Your task to perform on an android device: Show me productivity apps on the Play Store Image 0: 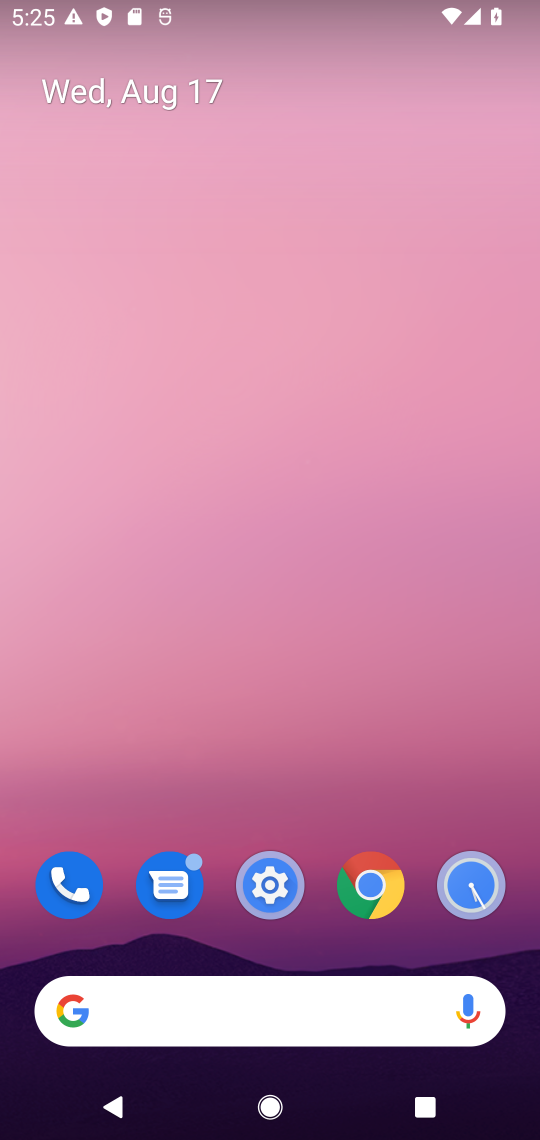
Step 0: drag from (334, 435) to (375, 255)
Your task to perform on an android device: Show me productivity apps on the Play Store Image 1: 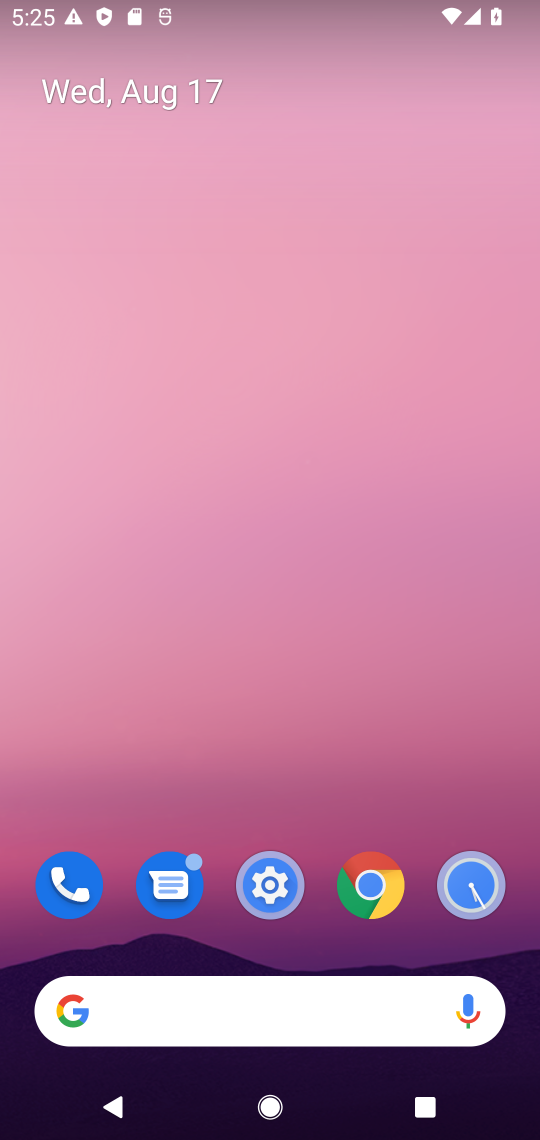
Step 1: drag from (196, 753) to (247, 326)
Your task to perform on an android device: Show me productivity apps on the Play Store Image 2: 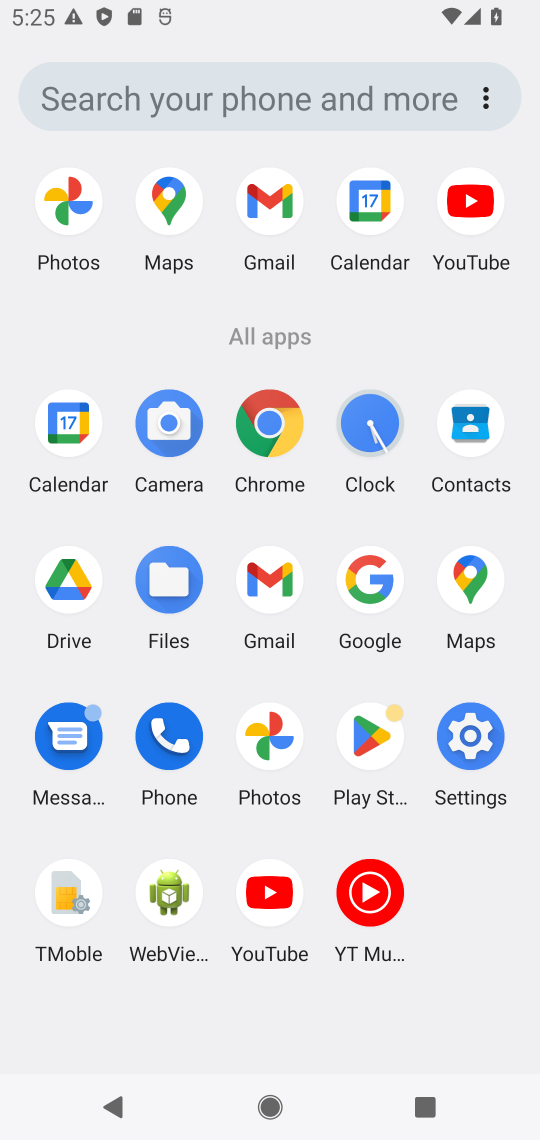
Step 2: click (380, 726)
Your task to perform on an android device: Show me productivity apps on the Play Store Image 3: 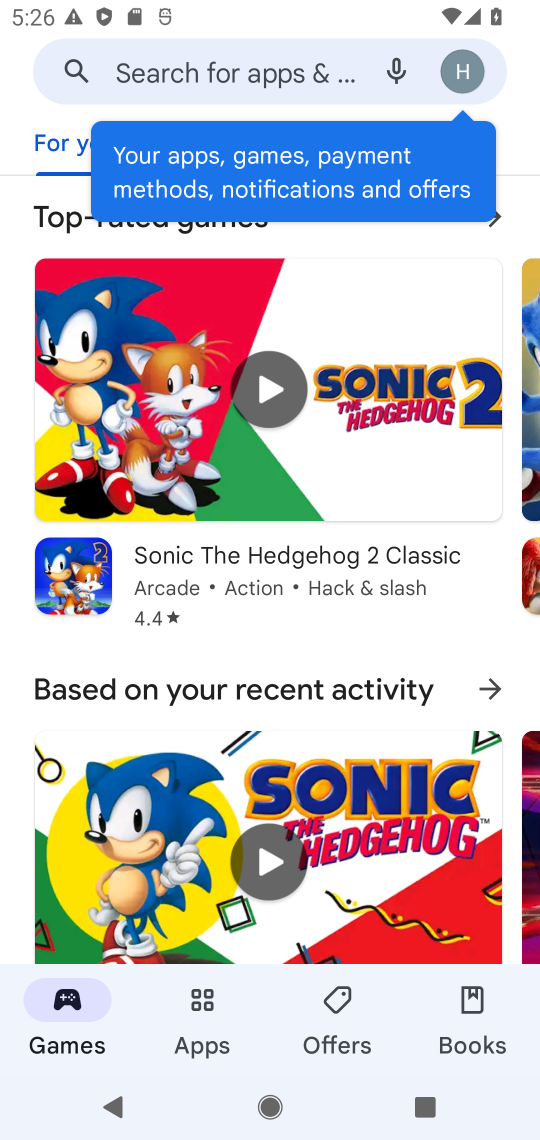
Step 3: click (202, 1020)
Your task to perform on an android device: Show me productivity apps on the Play Store Image 4: 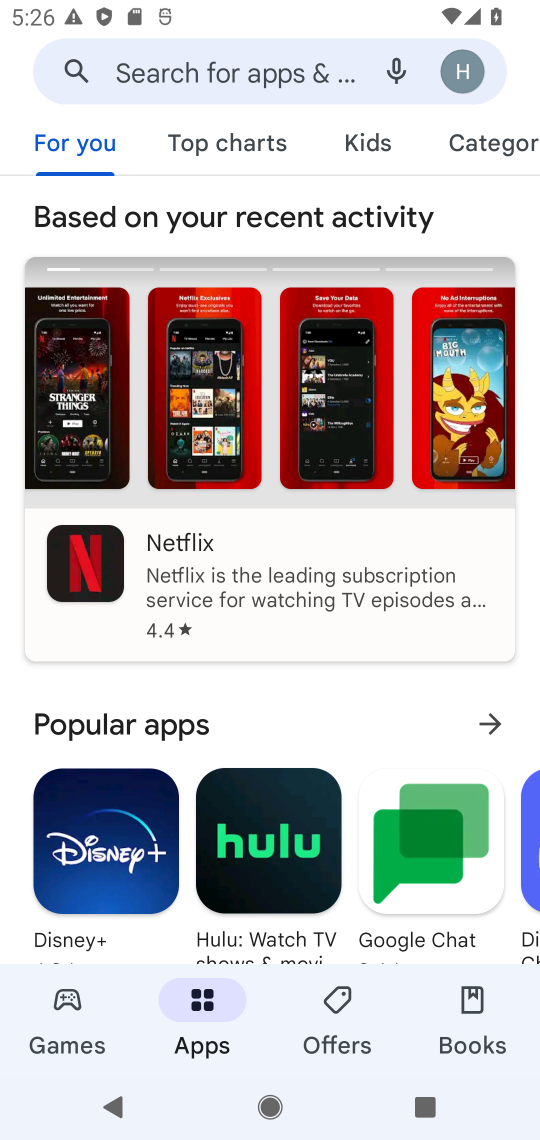
Step 4: drag from (316, 688) to (400, 147)
Your task to perform on an android device: Show me productivity apps on the Play Store Image 5: 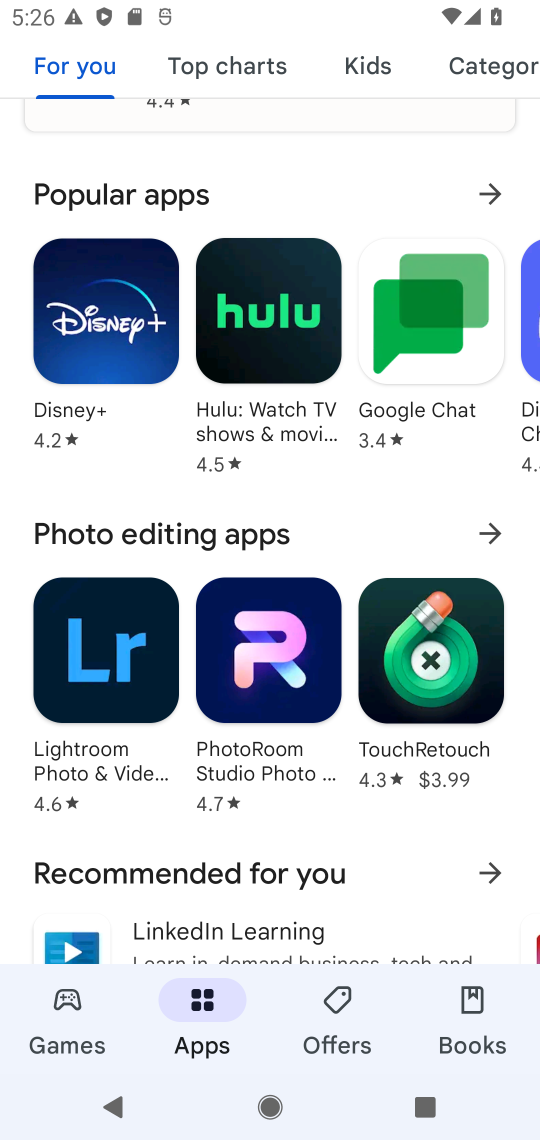
Step 5: drag from (291, 820) to (389, 222)
Your task to perform on an android device: Show me productivity apps on the Play Store Image 6: 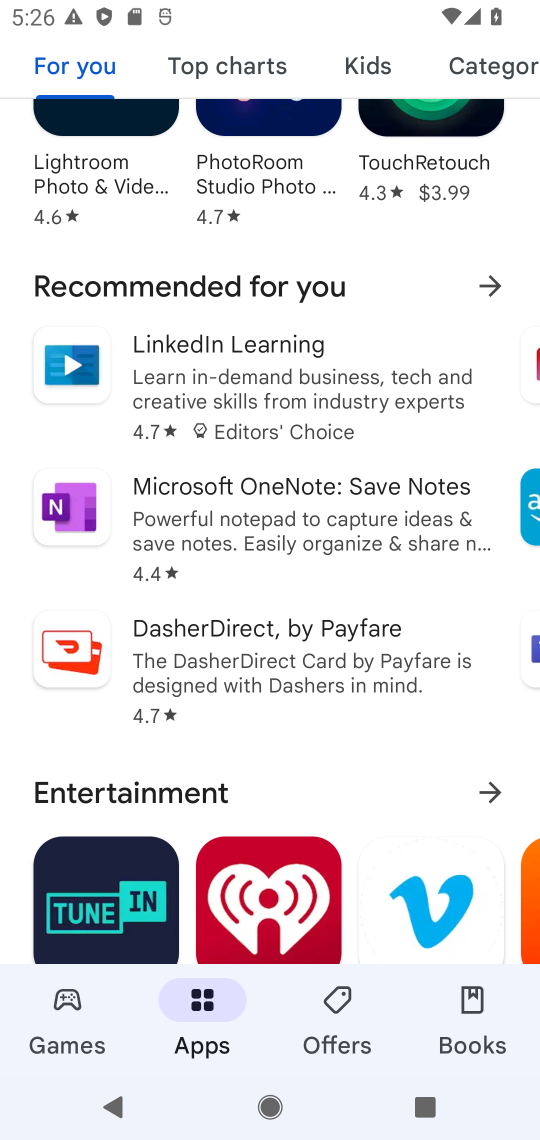
Step 6: drag from (254, 633) to (318, 329)
Your task to perform on an android device: Show me productivity apps on the Play Store Image 7: 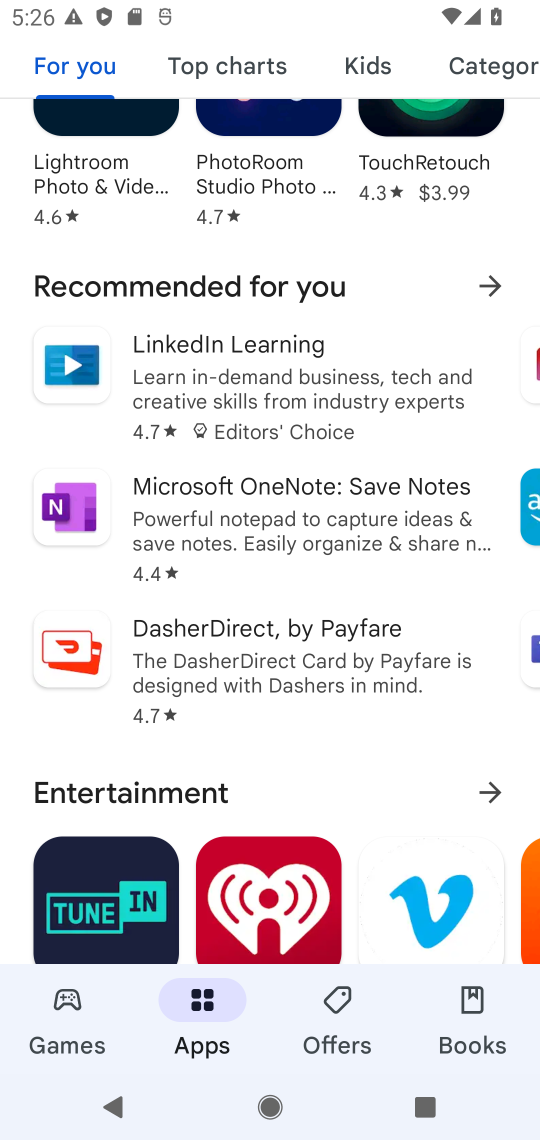
Step 7: drag from (251, 723) to (341, 362)
Your task to perform on an android device: Show me productivity apps on the Play Store Image 8: 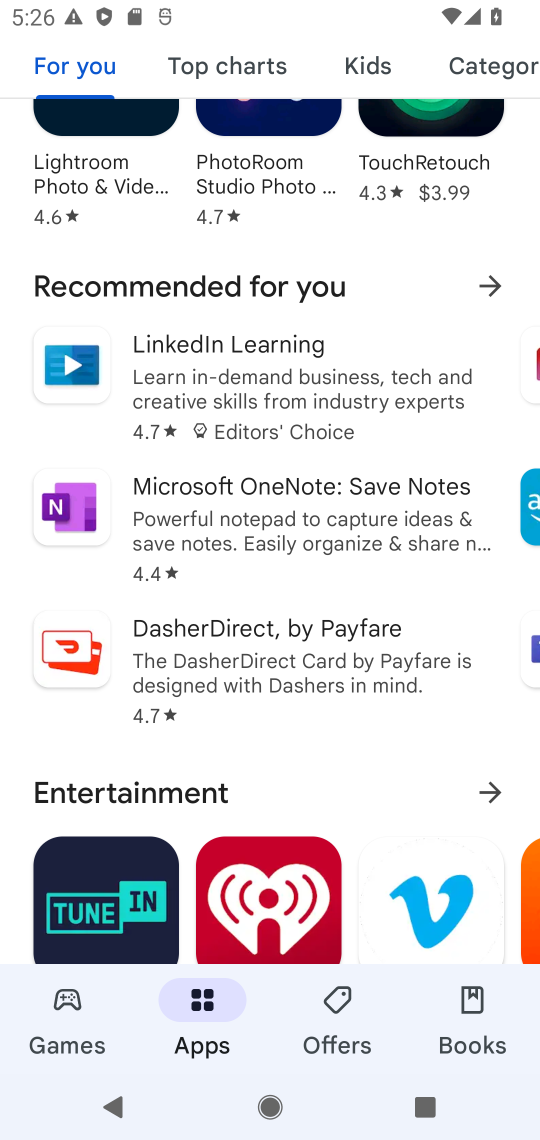
Step 8: drag from (425, 738) to (391, 246)
Your task to perform on an android device: Show me productivity apps on the Play Store Image 9: 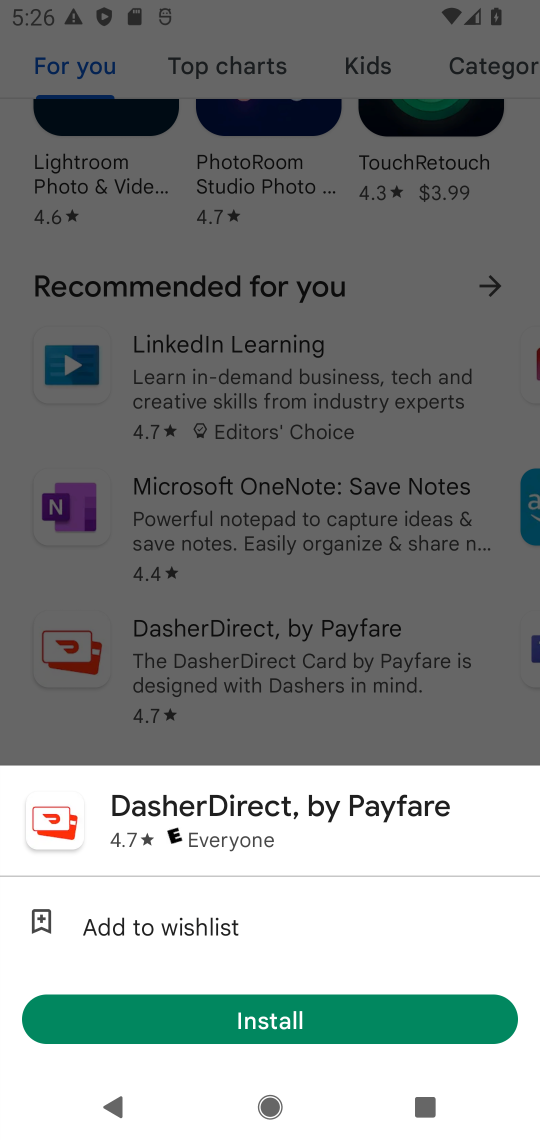
Step 9: click (357, 414)
Your task to perform on an android device: Show me productivity apps on the Play Store Image 10: 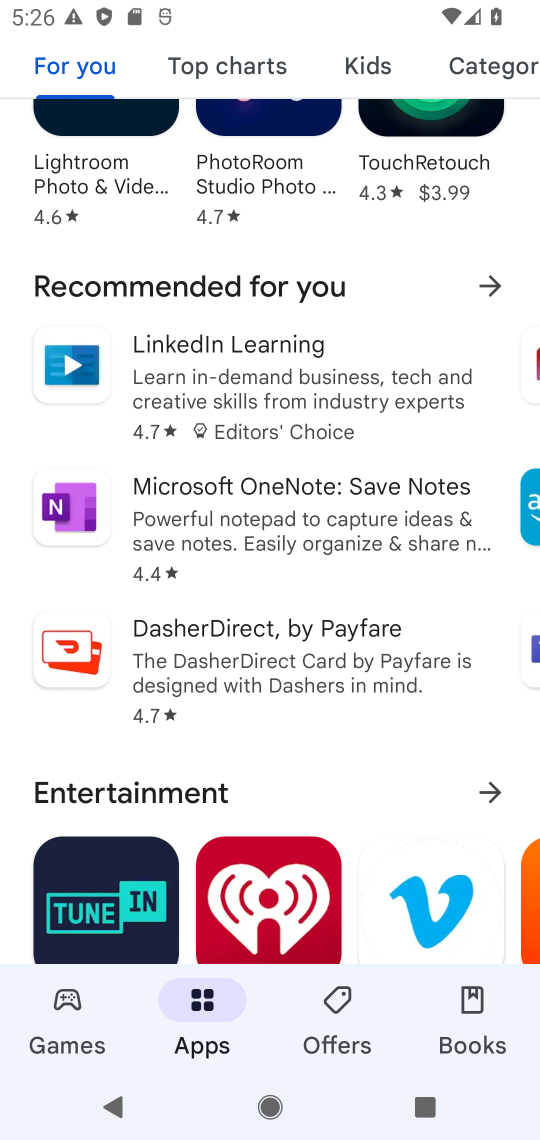
Step 10: drag from (159, 814) to (240, 266)
Your task to perform on an android device: Show me productivity apps on the Play Store Image 11: 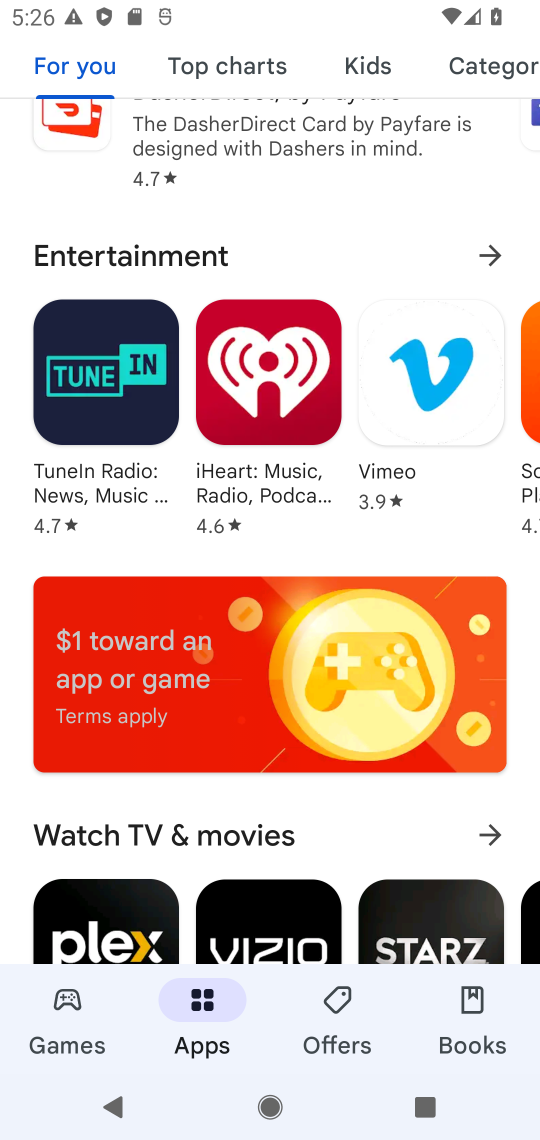
Step 11: drag from (369, 844) to (335, 374)
Your task to perform on an android device: Show me productivity apps on the Play Store Image 12: 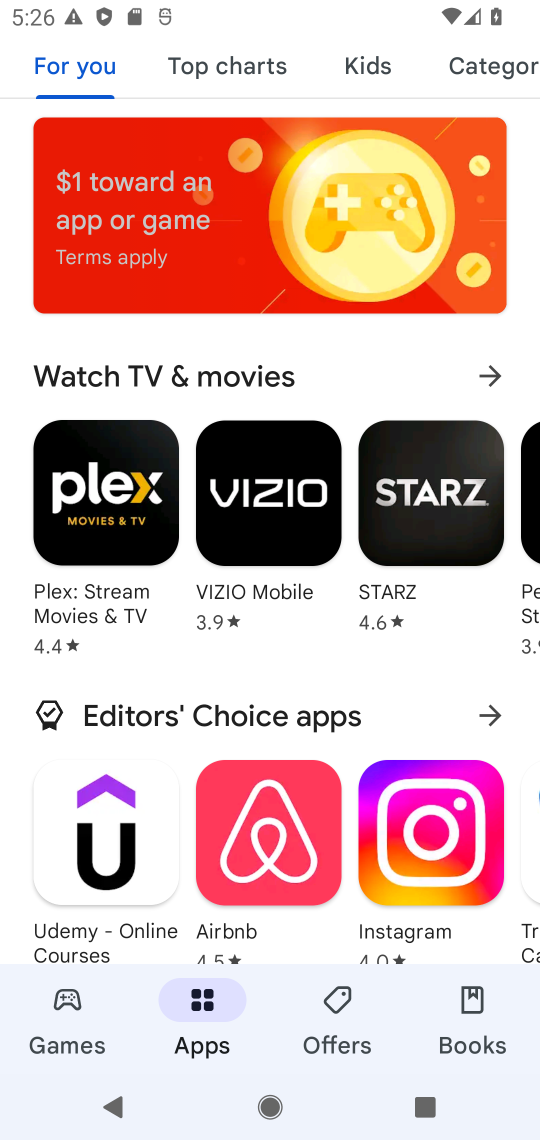
Step 12: drag from (323, 601) to (381, 169)
Your task to perform on an android device: Show me productivity apps on the Play Store Image 13: 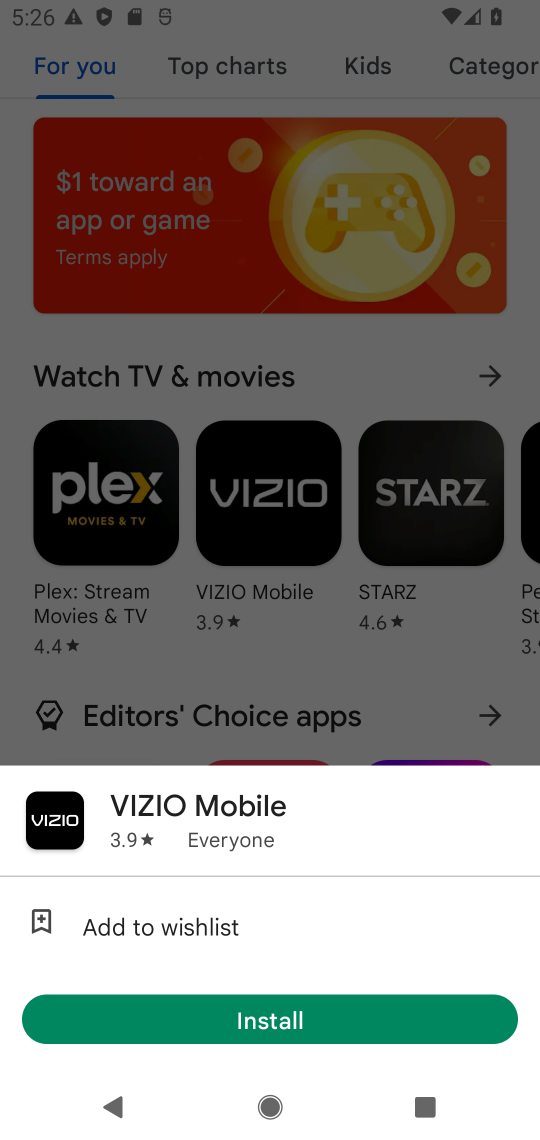
Step 13: click (250, 508)
Your task to perform on an android device: Show me productivity apps on the Play Store Image 14: 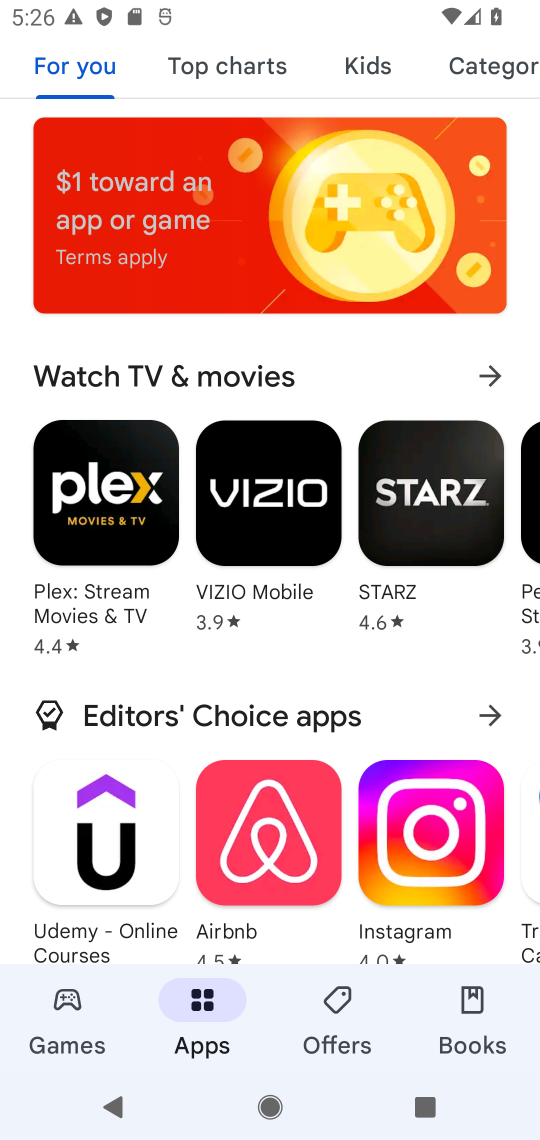
Step 14: task complete